Your task to perform on an android device: Turn on the flashlight Image 0: 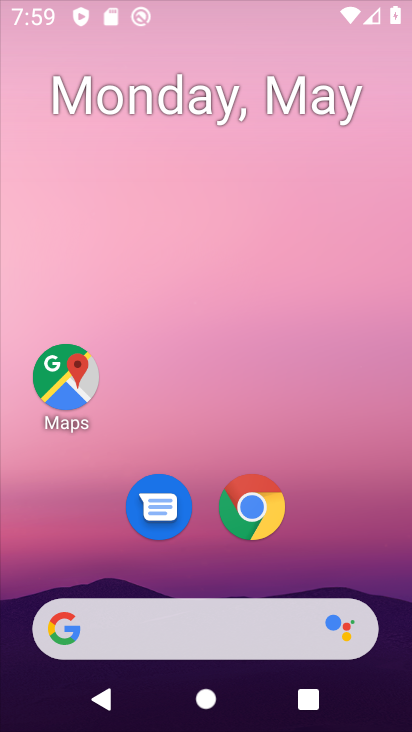
Step 0: click (254, 496)
Your task to perform on an android device: Turn on the flashlight Image 1: 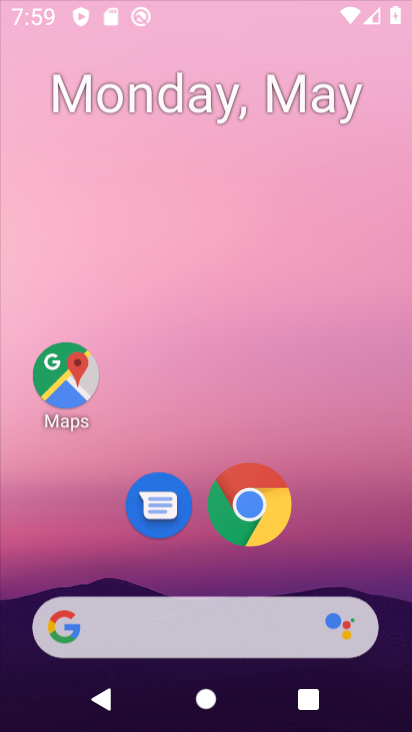
Step 1: click (254, 496)
Your task to perform on an android device: Turn on the flashlight Image 2: 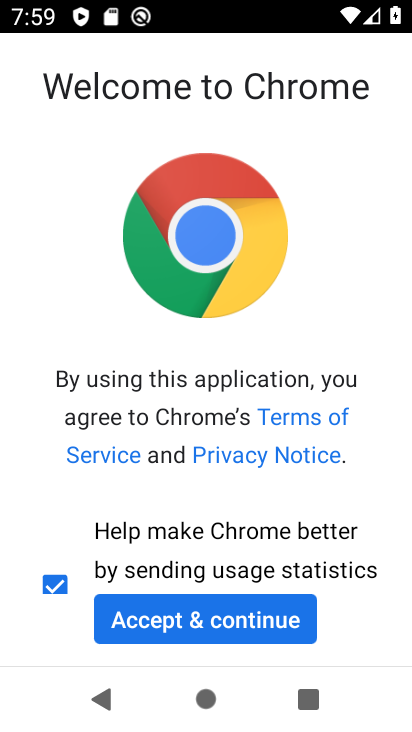
Step 2: click (181, 631)
Your task to perform on an android device: Turn on the flashlight Image 3: 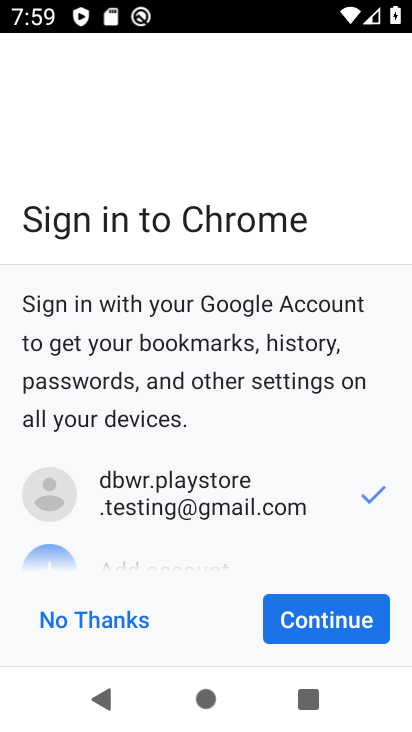
Step 3: click (348, 611)
Your task to perform on an android device: Turn on the flashlight Image 4: 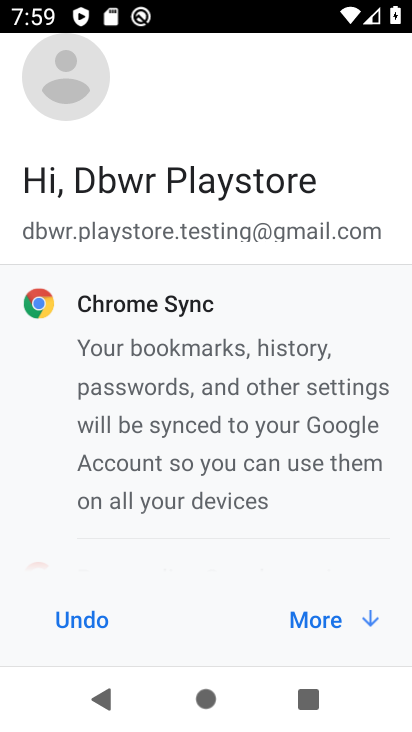
Step 4: click (322, 612)
Your task to perform on an android device: Turn on the flashlight Image 5: 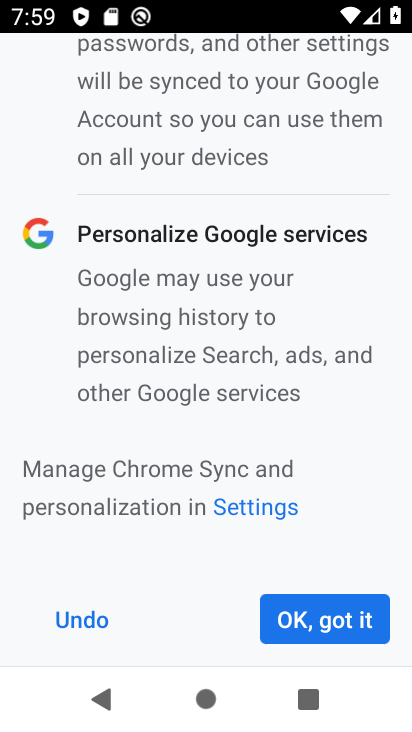
Step 5: click (323, 613)
Your task to perform on an android device: Turn on the flashlight Image 6: 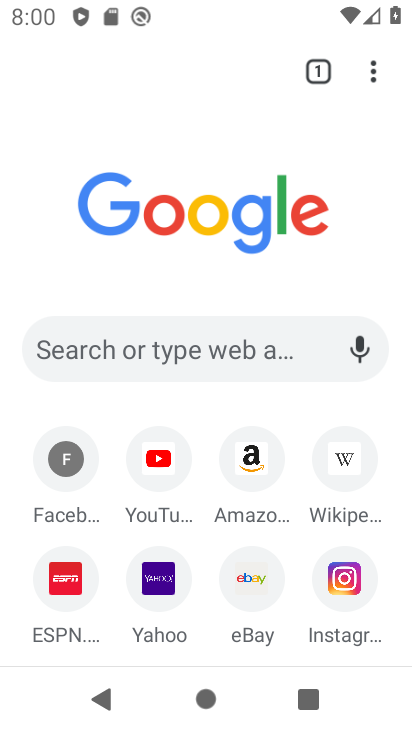
Step 6: press home button
Your task to perform on an android device: Turn on the flashlight Image 7: 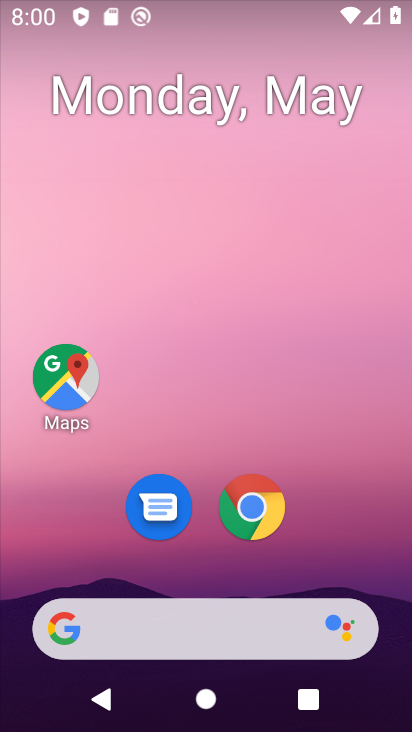
Step 7: drag from (200, 563) to (27, 440)
Your task to perform on an android device: Turn on the flashlight Image 8: 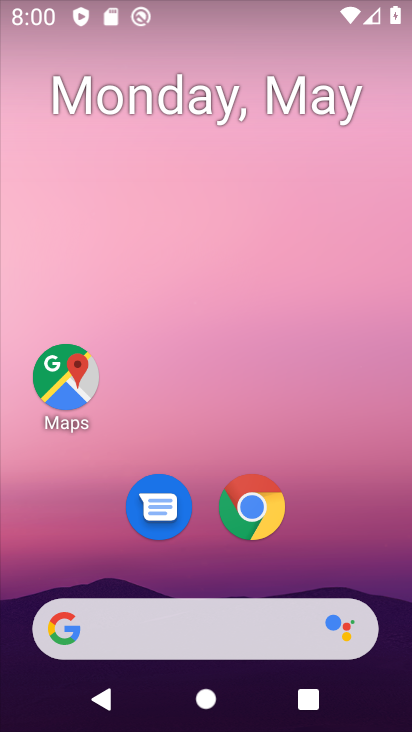
Step 8: drag from (198, 573) to (346, 0)
Your task to perform on an android device: Turn on the flashlight Image 9: 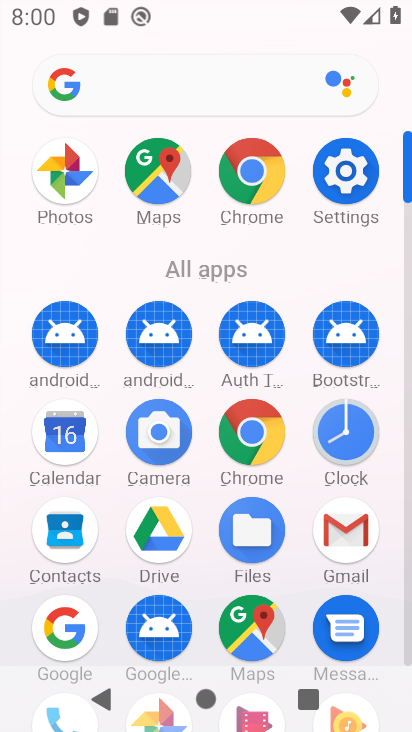
Step 9: click (348, 183)
Your task to perform on an android device: Turn on the flashlight Image 10: 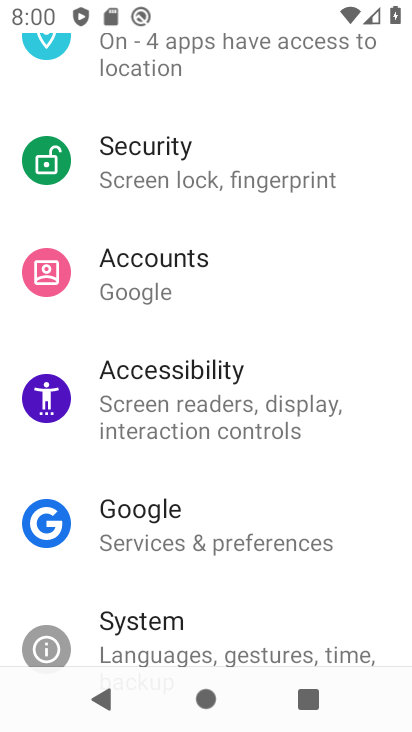
Step 10: drag from (254, 121) to (191, 478)
Your task to perform on an android device: Turn on the flashlight Image 11: 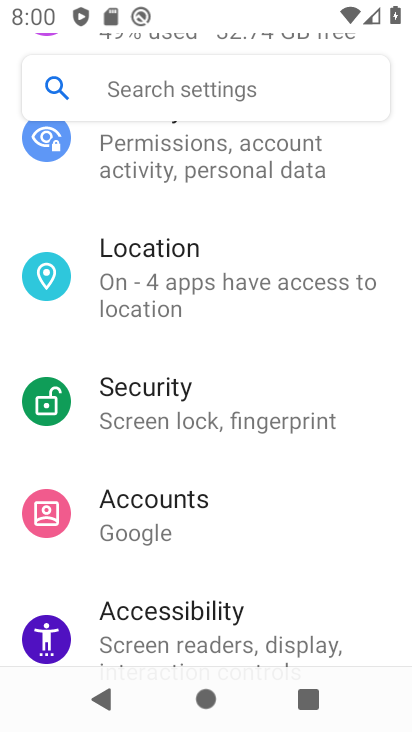
Step 11: click (234, 76)
Your task to perform on an android device: Turn on the flashlight Image 12: 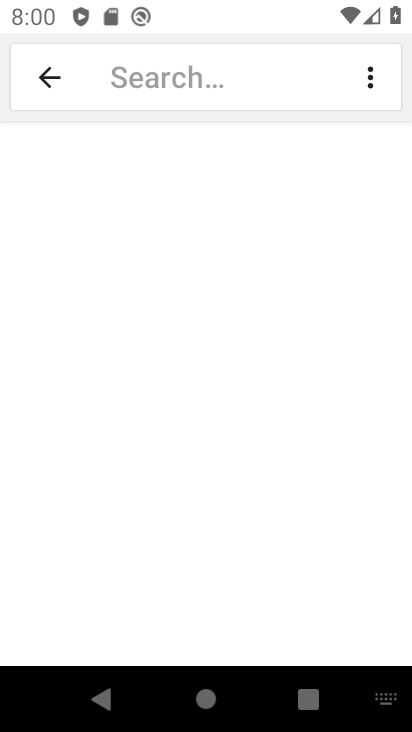
Step 12: type "flashlight"
Your task to perform on an android device: Turn on the flashlight Image 13: 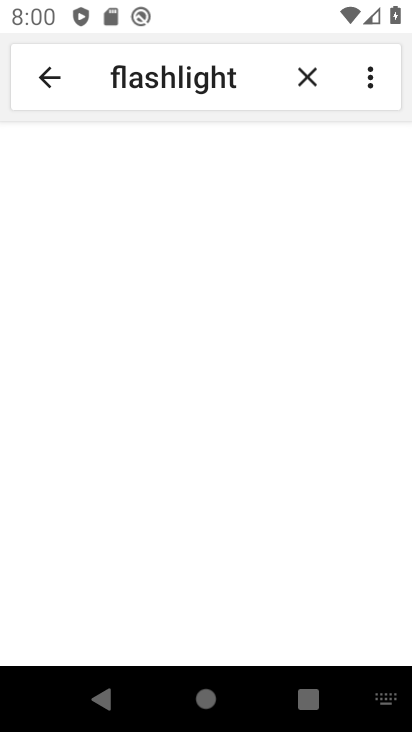
Step 13: click (167, 161)
Your task to perform on an android device: Turn on the flashlight Image 14: 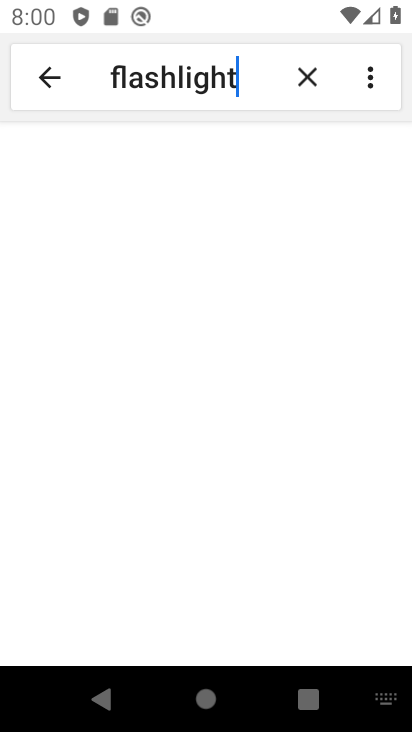
Step 14: click (144, 173)
Your task to perform on an android device: Turn on the flashlight Image 15: 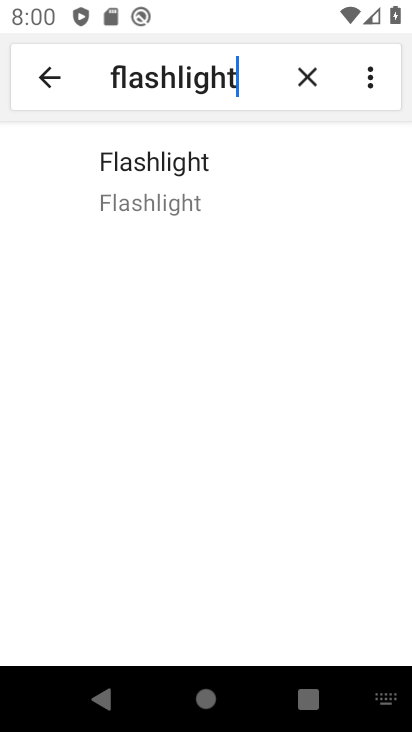
Step 15: click (143, 176)
Your task to perform on an android device: Turn on the flashlight Image 16: 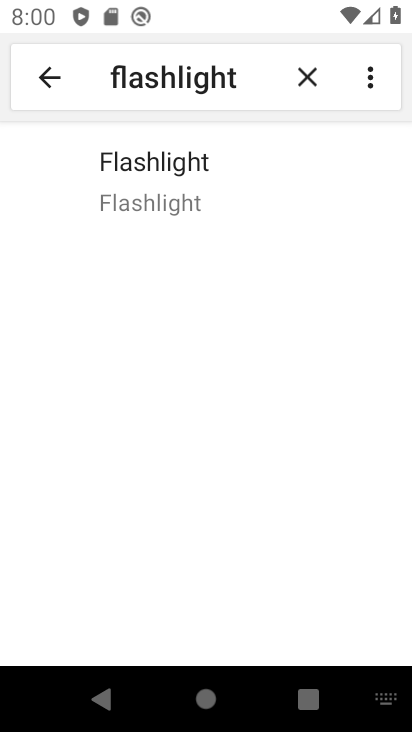
Step 16: click (142, 178)
Your task to perform on an android device: Turn on the flashlight Image 17: 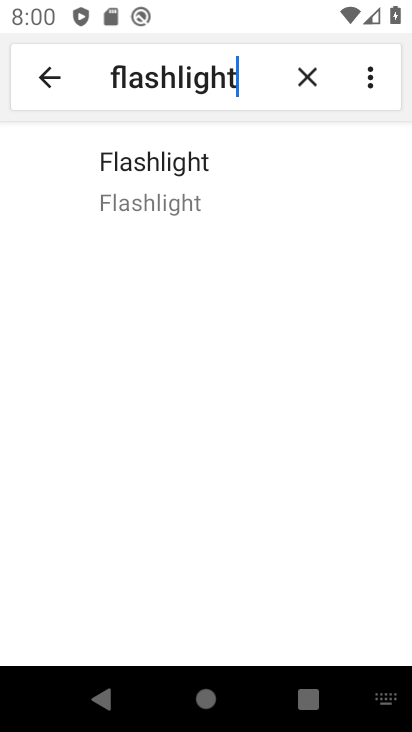
Step 17: task complete